Your task to perform on an android device: Install the eBay app Image 0: 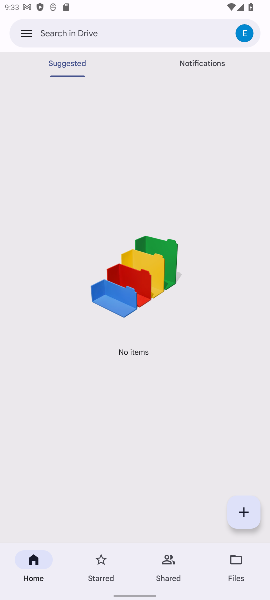
Step 0: press home button
Your task to perform on an android device: Install the eBay app Image 1: 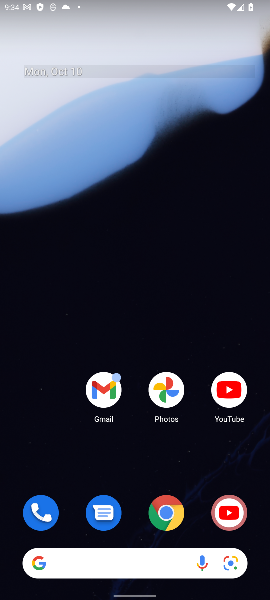
Step 1: drag from (125, 514) to (123, 257)
Your task to perform on an android device: Install the eBay app Image 2: 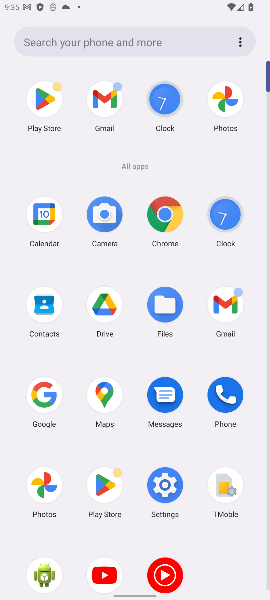
Step 2: click (52, 101)
Your task to perform on an android device: Install the eBay app Image 3: 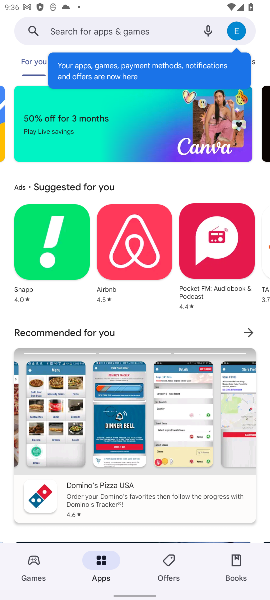
Step 3: click (113, 32)
Your task to perform on an android device: Install the eBay app Image 4: 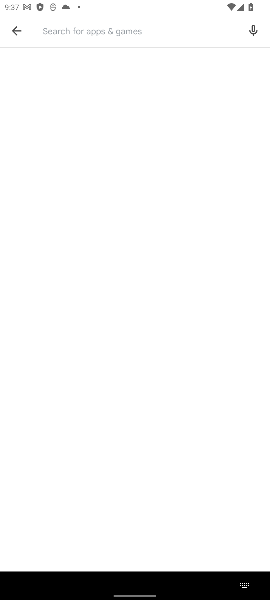
Step 4: click (128, 36)
Your task to perform on an android device: Install the eBay app Image 5: 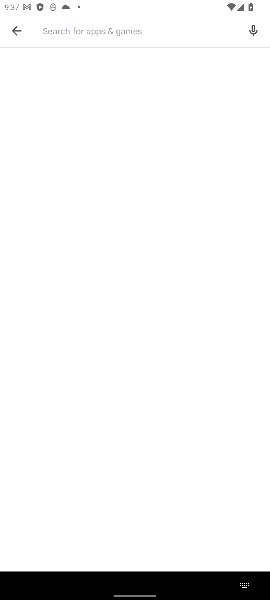
Step 5: type "Install the eBay app"
Your task to perform on an android device: Install the eBay app Image 6: 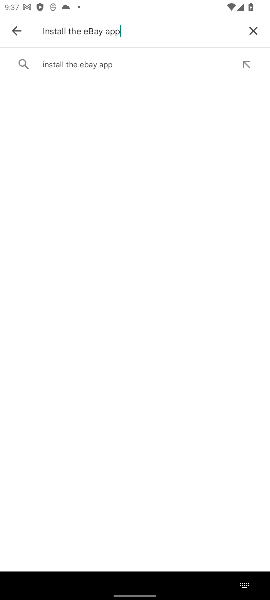
Step 6: click (103, 64)
Your task to perform on an android device: Install the eBay app Image 7: 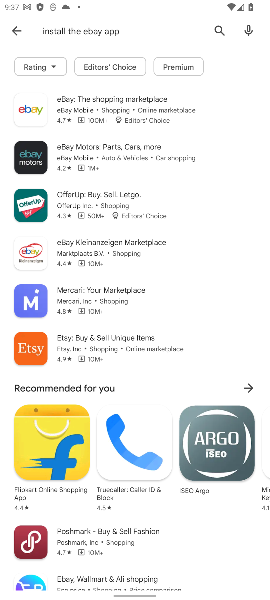
Step 7: click (135, 105)
Your task to perform on an android device: Install the eBay app Image 8: 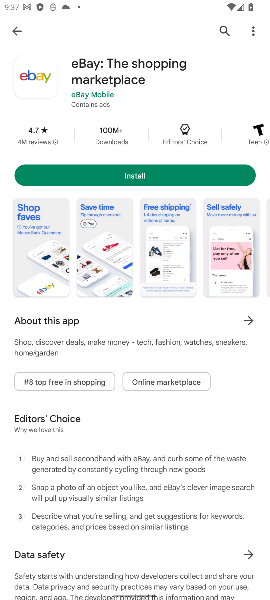
Step 8: click (149, 171)
Your task to perform on an android device: Install the eBay app Image 9: 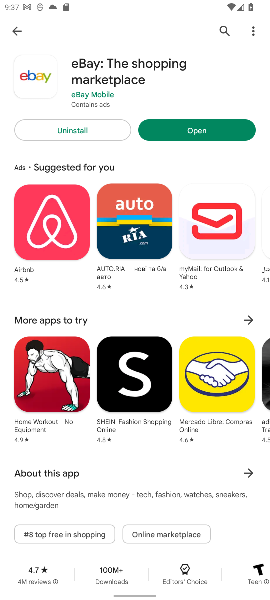
Step 9: click (183, 127)
Your task to perform on an android device: Install the eBay app Image 10: 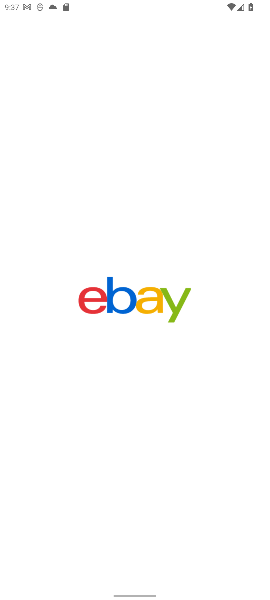
Step 10: task complete